Your task to perform on an android device: check android version Image 0: 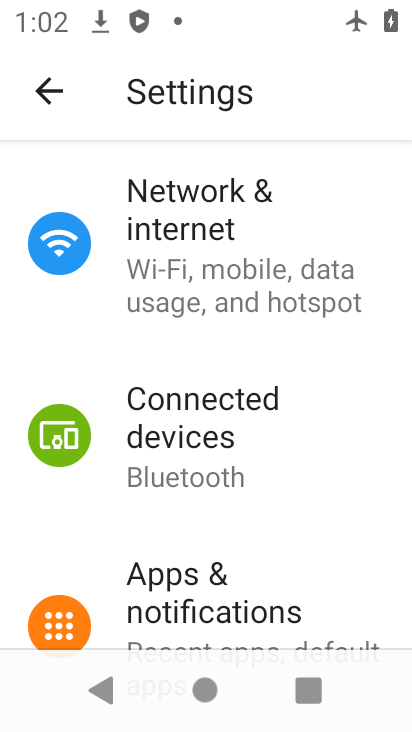
Step 0: drag from (264, 589) to (155, 114)
Your task to perform on an android device: check android version Image 1: 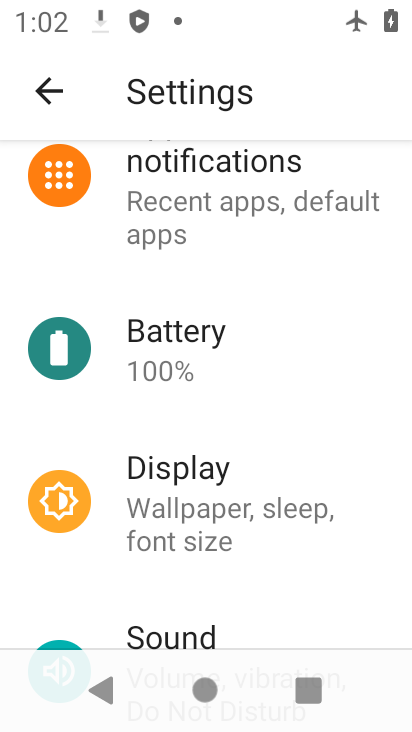
Step 1: drag from (216, 545) to (262, 197)
Your task to perform on an android device: check android version Image 2: 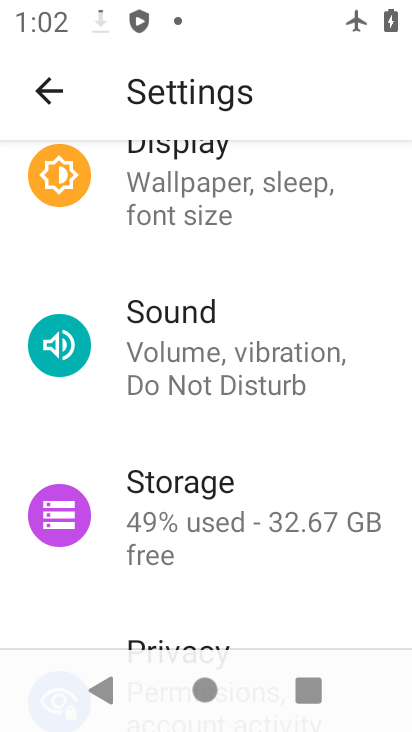
Step 2: drag from (214, 580) to (201, 136)
Your task to perform on an android device: check android version Image 3: 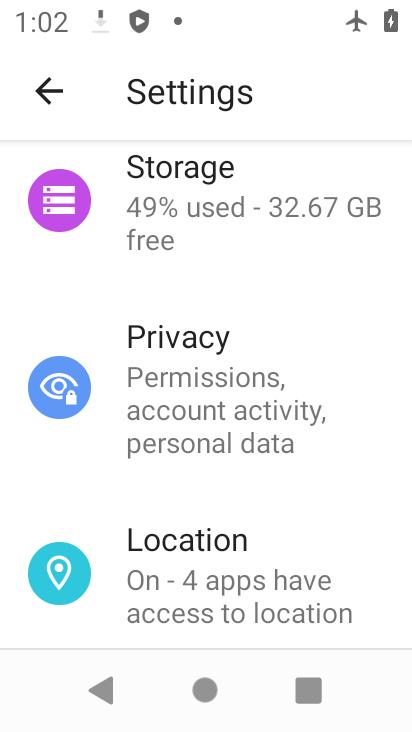
Step 3: drag from (224, 511) to (232, 161)
Your task to perform on an android device: check android version Image 4: 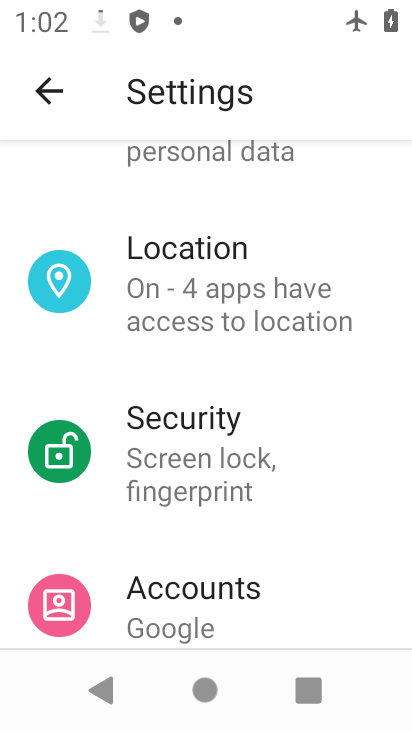
Step 4: drag from (182, 534) to (211, 91)
Your task to perform on an android device: check android version Image 5: 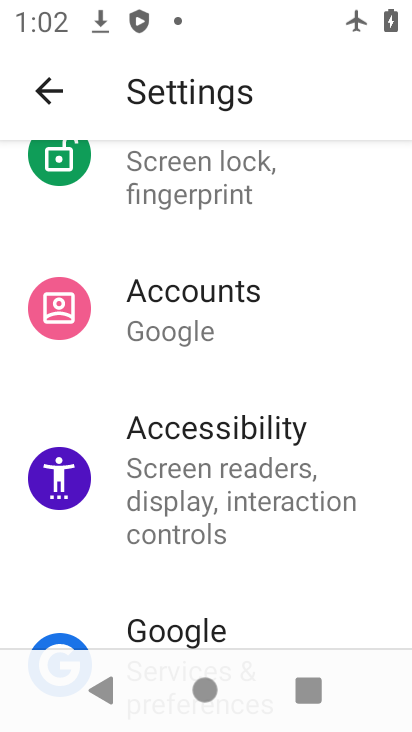
Step 5: drag from (203, 565) to (195, 62)
Your task to perform on an android device: check android version Image 6: 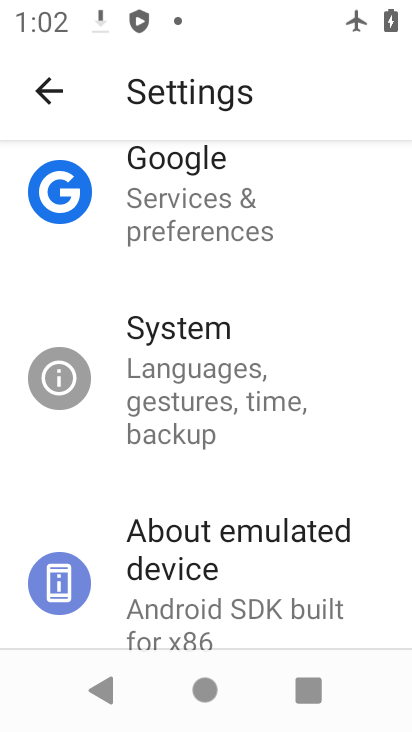
Step 6: click (201, 570)
Your task to perform on an android device: check android version Image 7: 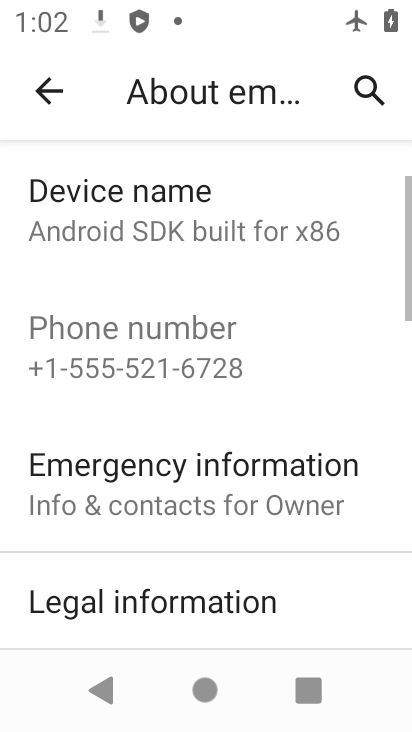
Step 7: drag from (186, 571) to (196, 189)
Your task to perform on an android device: check android version Image 8: 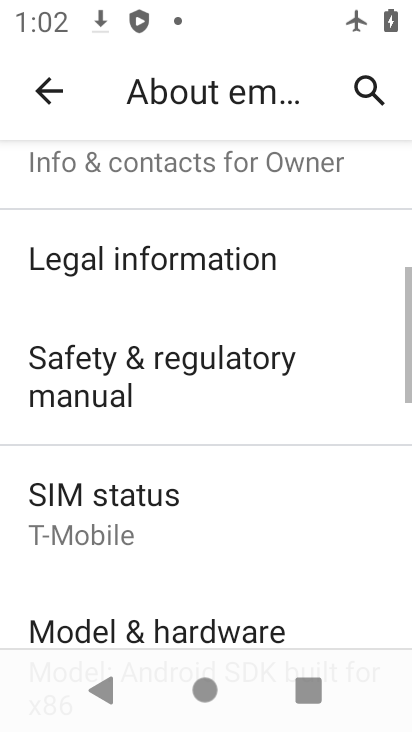
Step 8: drag from (178, 579) to (198, 294)
Your task to perform on an android device: check android version Image 9: 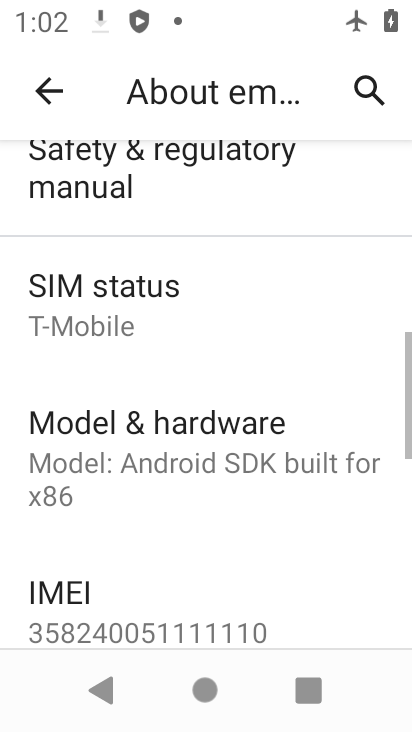
Step 9: drag from (204, 279) to (197, 623)
Your task to perform on an android device: check android version Image 10: 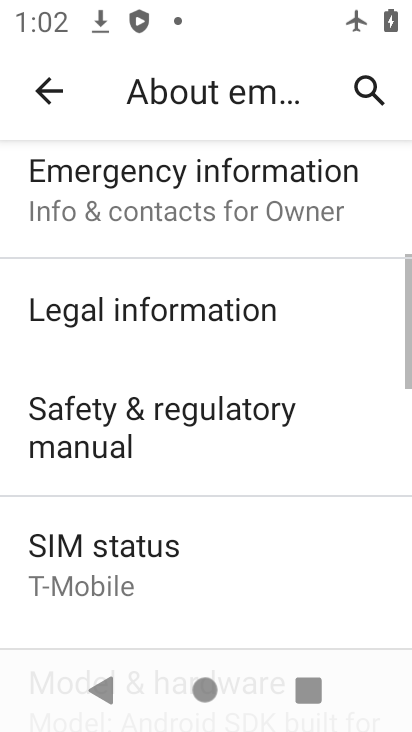
Step 10: drag from (207, 377) to (193, 615)
Your task to perform on an android device: check android version Image 11: 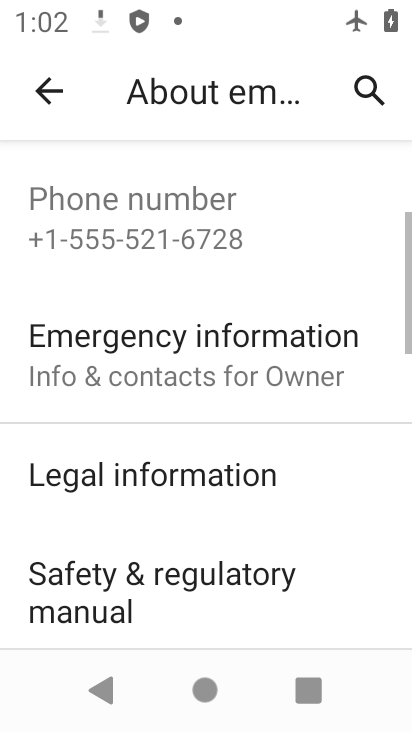
Step 11: drag from (172, 566) to (155, 642)
Your task to perform on an android device: check android version Image 12: 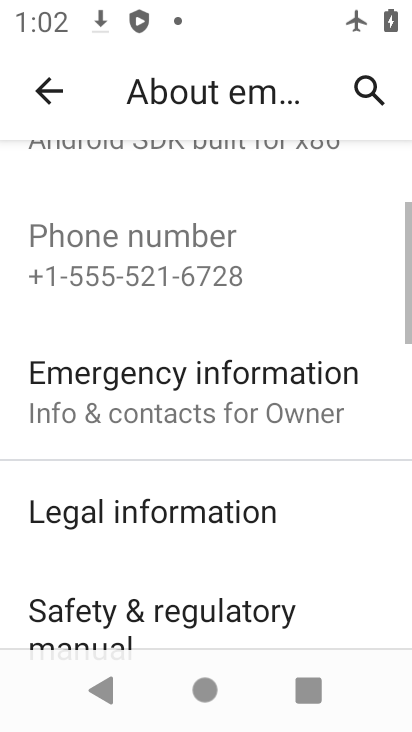
Step 12: drag from (216, 355) to (192, 711)
Your task to perform on an android device: check android version Image 13: 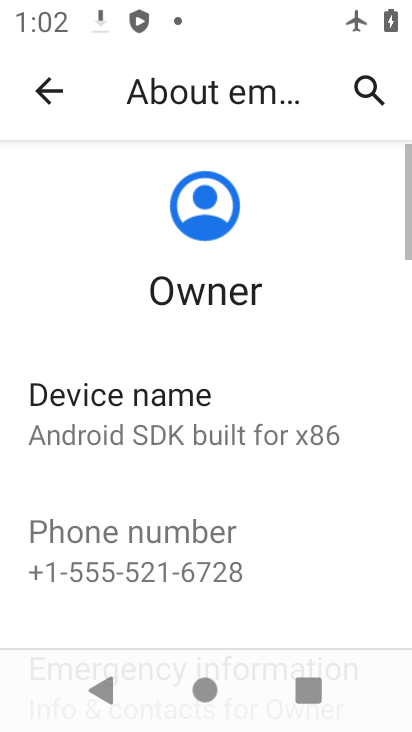
Step 13: drag from (282, 525) to (294, 181)
Your task to perform on an android device: check android version Image 14: 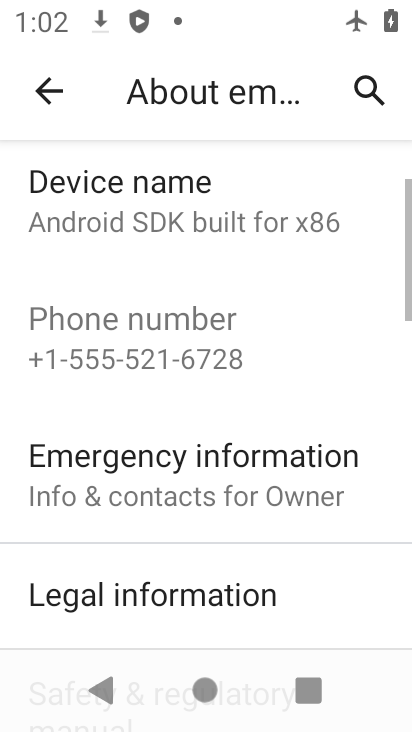
Step 14: drag from (218, 596) to (282, 209)
Your task to perform on an android device: check android version Image 15: 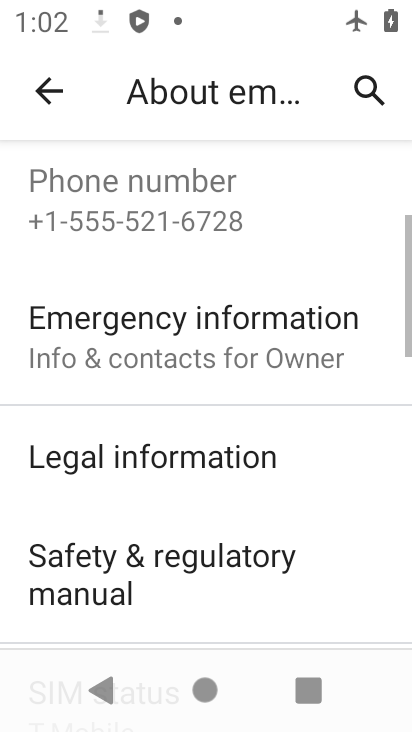
Step 15: drag from (245, 522) to (265, 154)
Your task to perform on an android device: check android version Image 16: 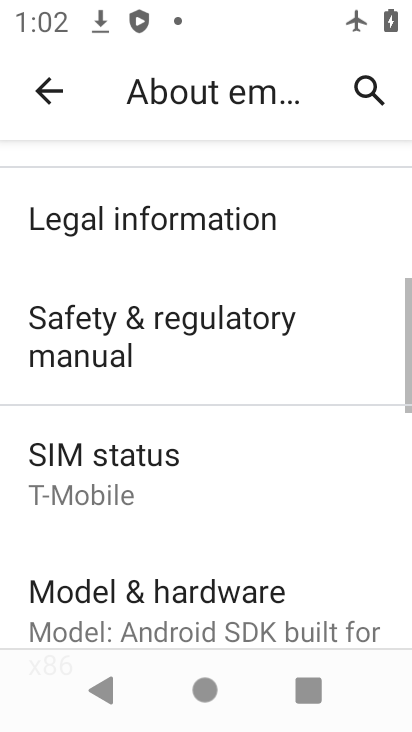
Step 16: drag from (148, 484) to (204, 123)
Your task to perform on an android device: check android version Image 17: 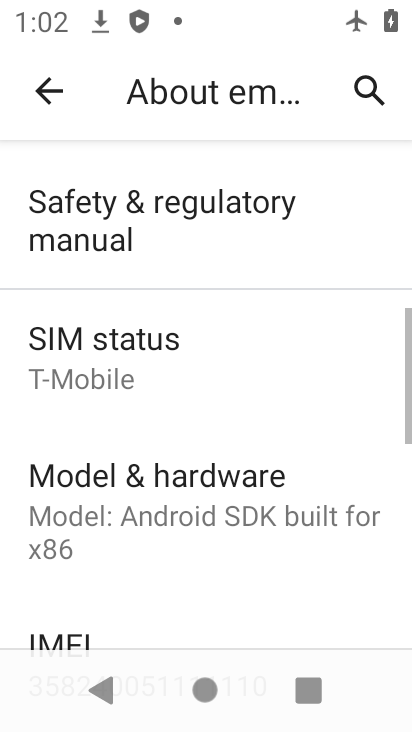
Step 17: drag from (156, 501) to (183, 204)
Your task to perform on an android device: check android version Image 18: 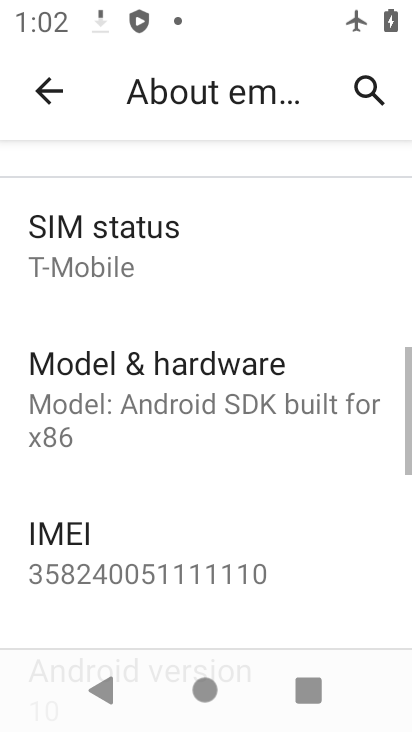
Step 18: drag from (101, 606) to (139, 293)
Your task to perform on an android device: check android version Image 19: 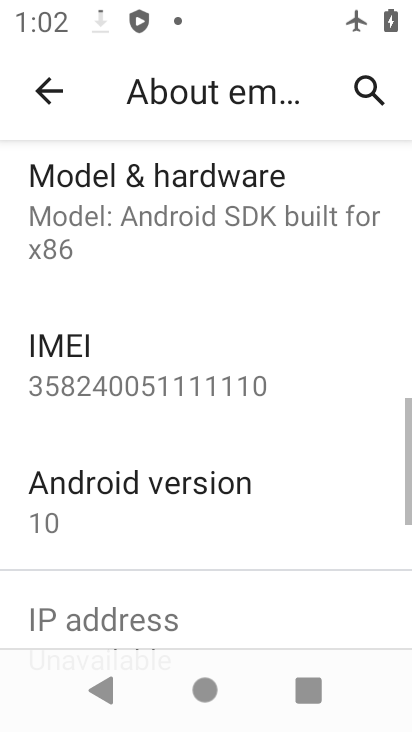
Step 19: click (125, 492)
Your task to perform on an android device: check android version Image 20: 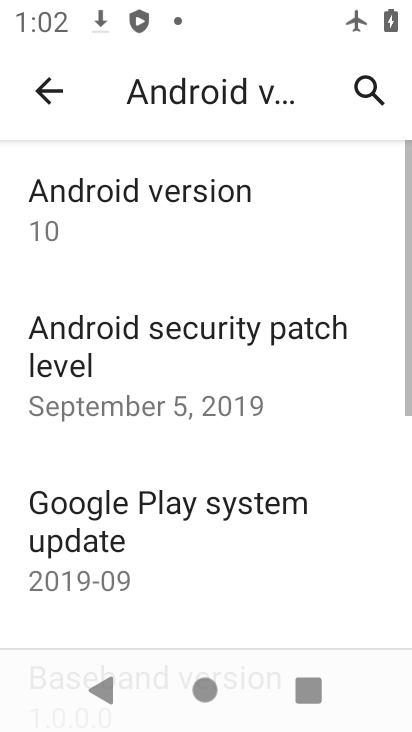
Step 20: task complete